Your task to perform on an android device: Is it going to rain this weekend? Image 0: 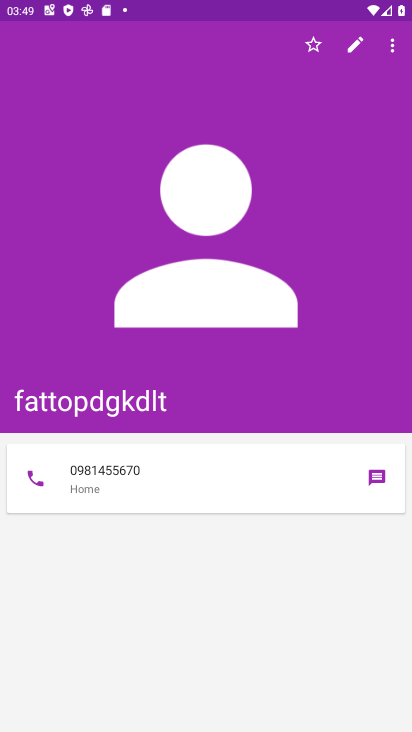
Step 0: press home button
Your task to perform on an android device: Is it going to rain this weekend? Image 1: 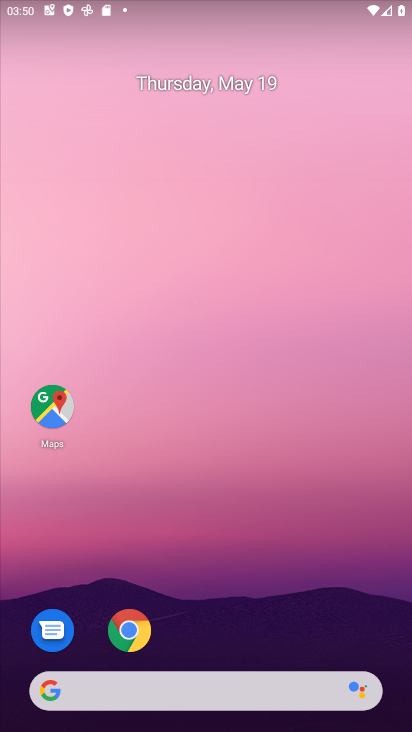
Step 1: drag from (383, 641) to (347, 247)
Your task to perform on an android device: Is it going to rain this weekend? Image 2: 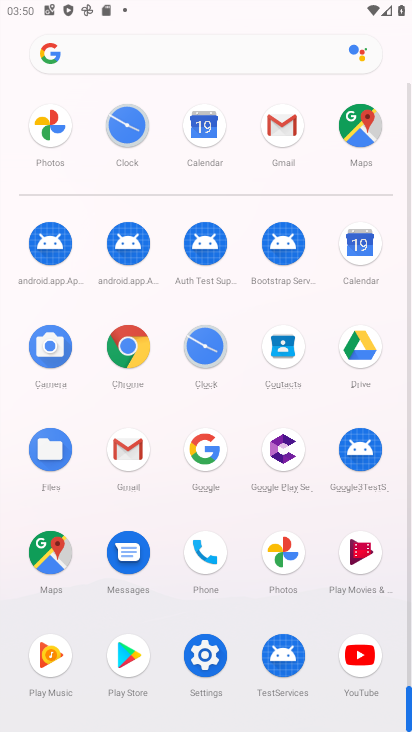
Step 2: click (132, 46)
Your task to perform on an android device: Is it going to rain this weekend? Image 3: 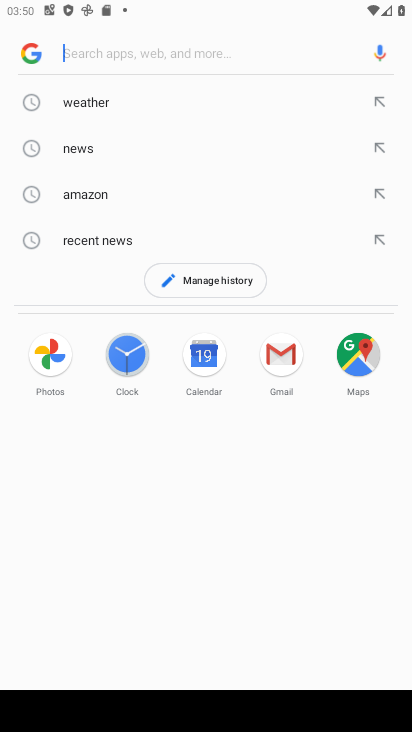
Step 3: click (87, 94)
Your task to perform on an android device: Is it going to rain this weekend? Image 4: 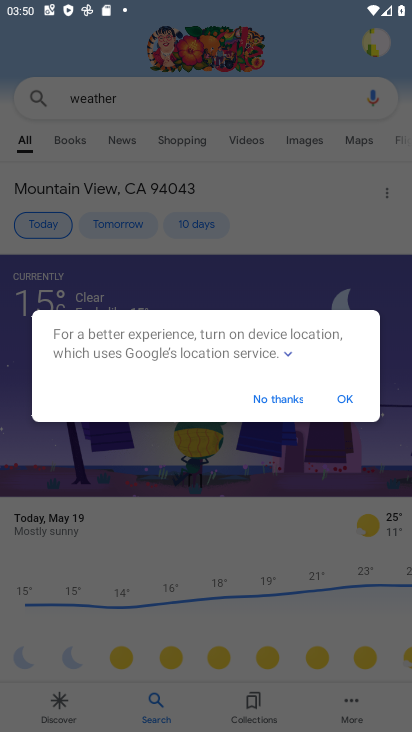
Step 4: click (344, 399)
Your task to perform on an android device: Is it going to rain this weekend? Image 5: 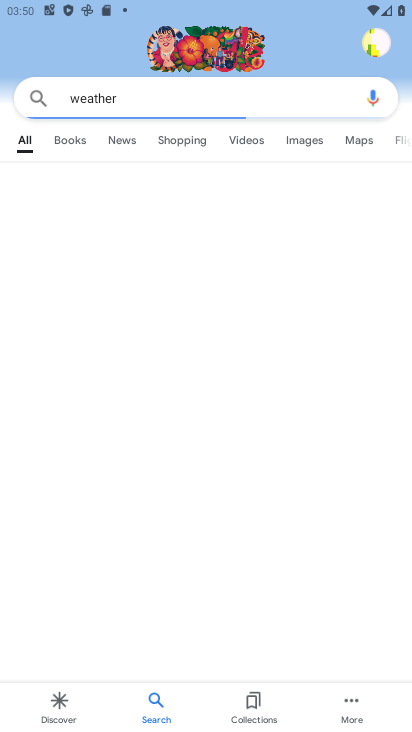
Step 5: click (192, 216)
Your task to perform on an android device: Is it going to rain this weekend? Image 6: 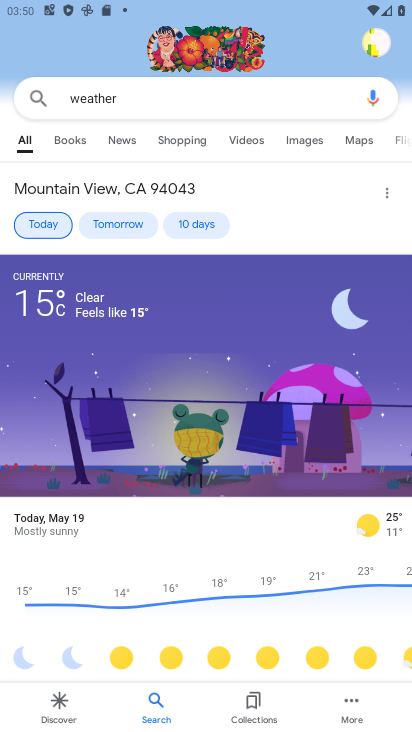
Step 6: click (194, 220)
Your task to perform on an android device: Is it going to rain this weekend? Image 7: 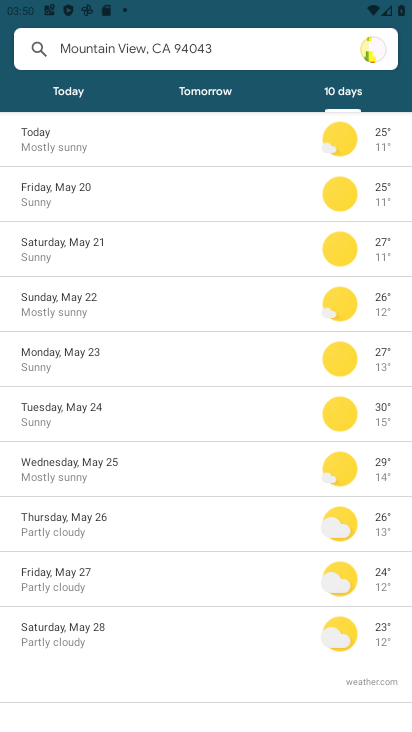
Step 7: task complete